Your task to perform on an android device: turn vacation reply on in the gmail app Image 0: 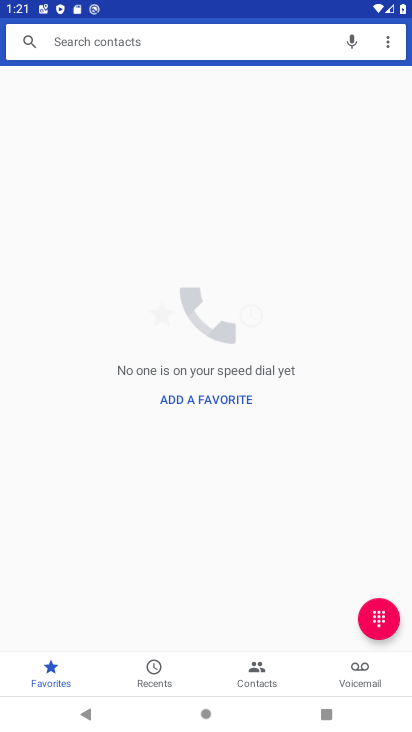
Step 0: press home button
Your task to perform on an android device: turn vacation reply on in the gmail app Image 1: 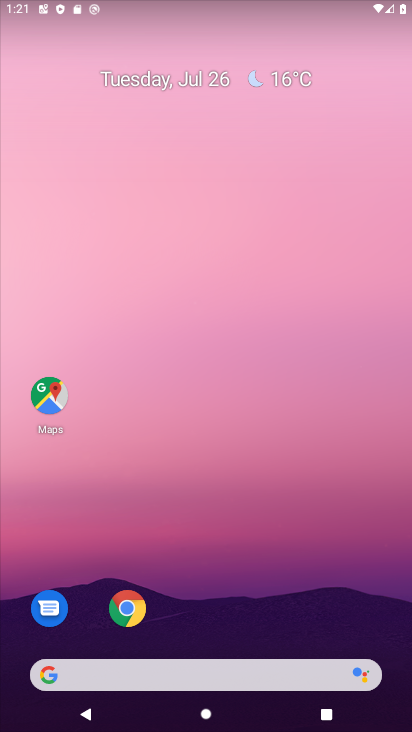
Step 1: drag from (230, 639) to (187, 219)
Your task to perform on an android device: turn vacation reply on in the gmail app Image 2: 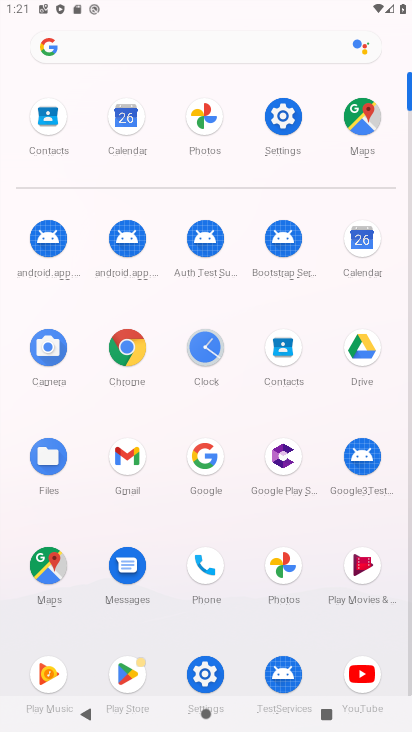
Step 2: click (137, 478)
Your task to perform on an android device: turn vacation reply on in the gmail app Image 3: 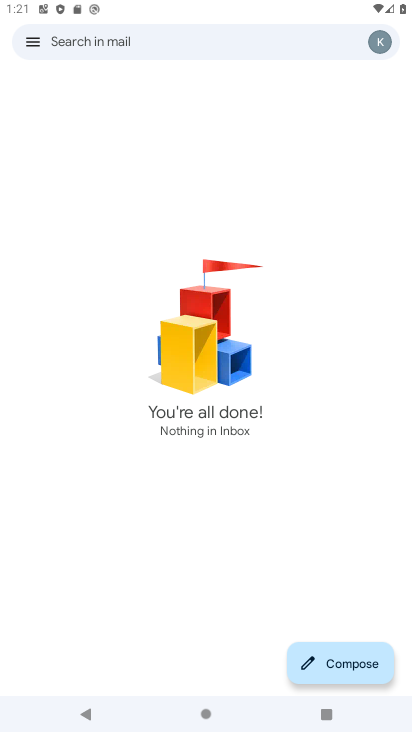
Step 3: task complete